Your task to perform on an android device: turn off notifications settings in the gmail app Image 0: 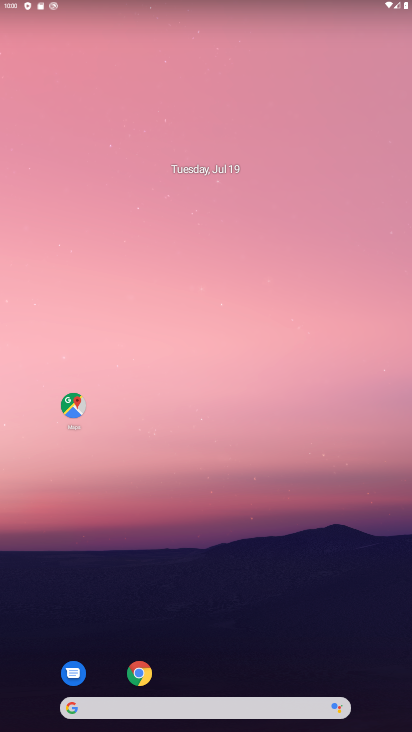
Step 0: drag from (324, 653) to (362, 82)
Your task to perform on an android device: turn off notifications settings in the gmail app Image 1: 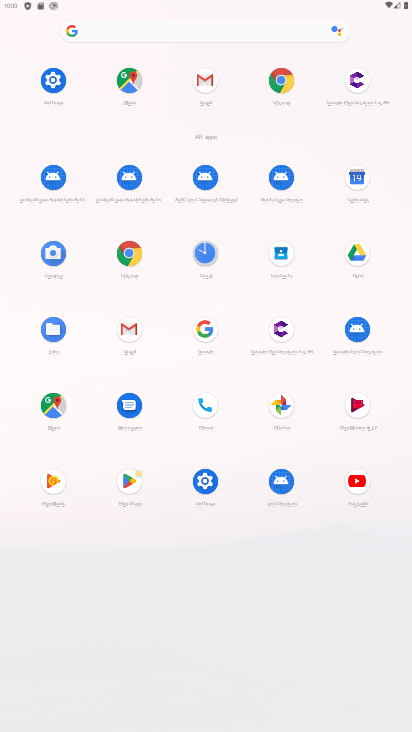
Step 1: click (125, 329)
Your task to perform on an android device: turn off notifications settings in the gmail app Image 2: 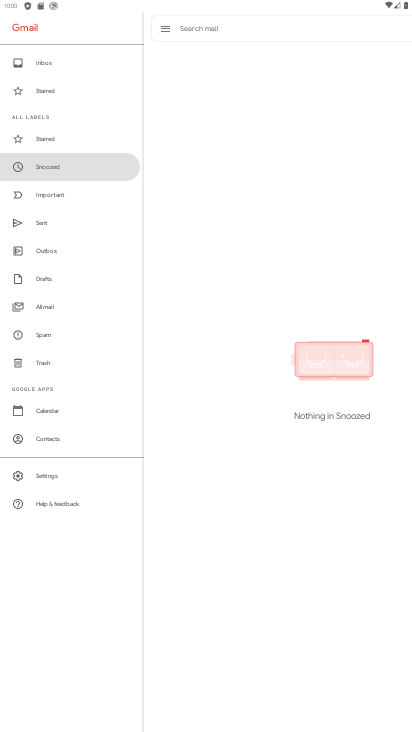
Step 2: click (51, 474)
Your task to perform on an android device: turn off notifications settings in the gmail app Image 3: 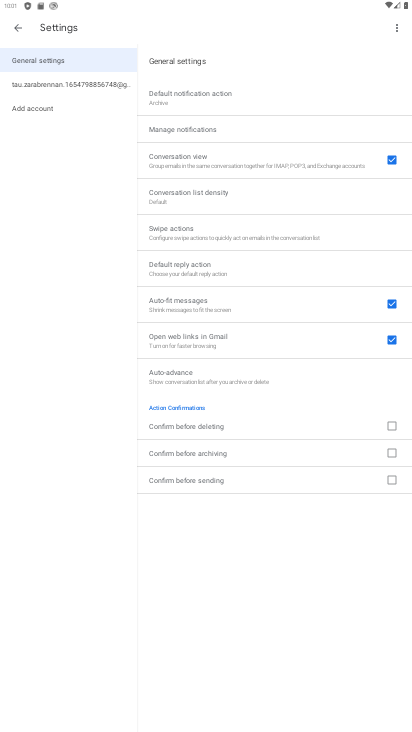
Step 3: click (256, 123)
Your task to perform on an android device: turn off notifications settings in the gmail app Image 4: 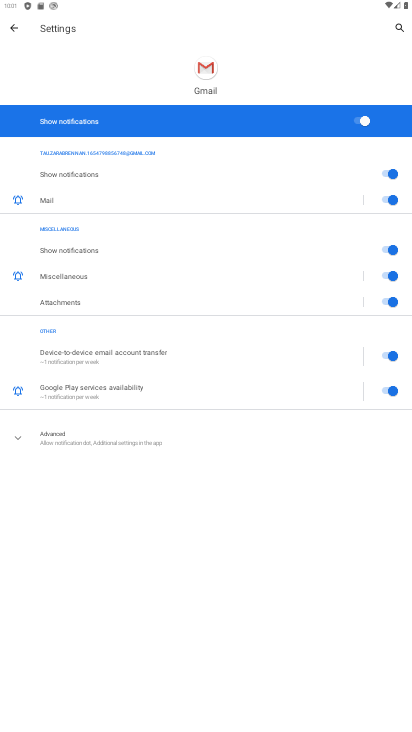
Step 4: click (357, 126)
Your task to perform on an android device: turn off notifications settings in the gmail app Image 5: 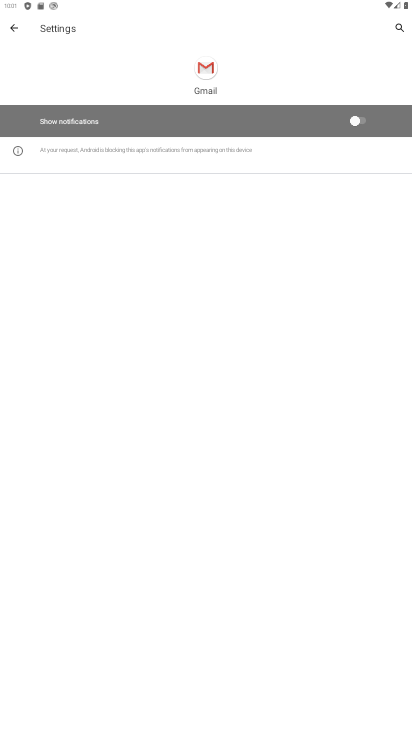
Step 5: task complete